Your task to perform on an android device: Go to internet settings Image 0: 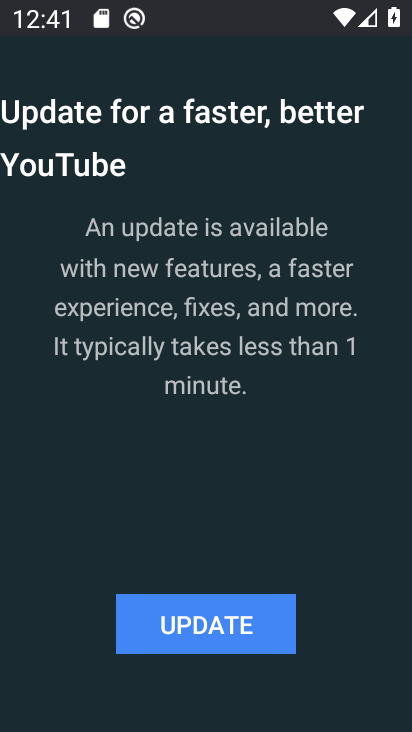
Step 0: press home button
Your task to perform on an android device: Go to internet settings Image 1: 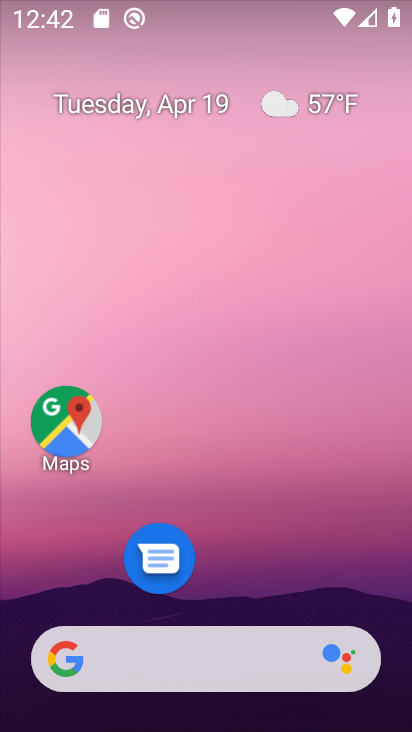
Step 1: drag from (245, 559) to (213, 99)
Your task to perform on an android device: Go to internet settings Image 2: 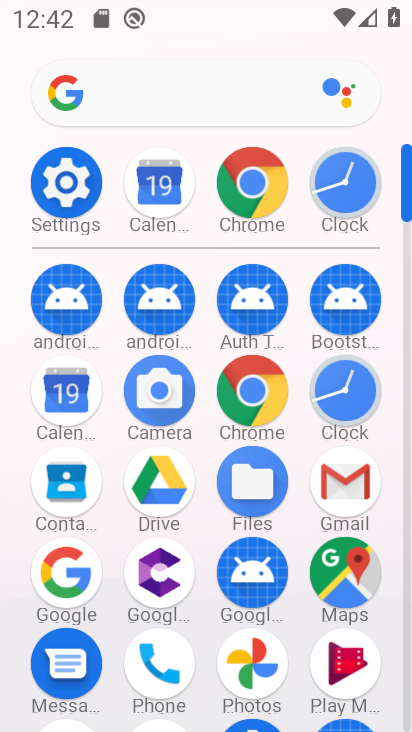
Step 2: click (65, 195)
Your task to perform on an android device: Go to internet settings Image 3: 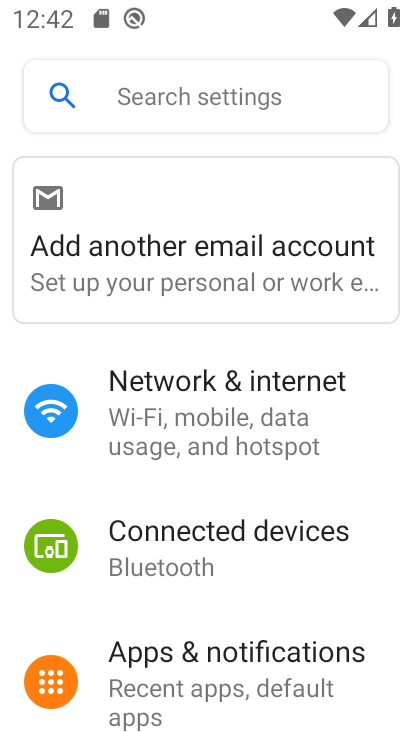
Step 3: click (175, 405)
Your task to perform on an android device: Go to internet settings Image 4: 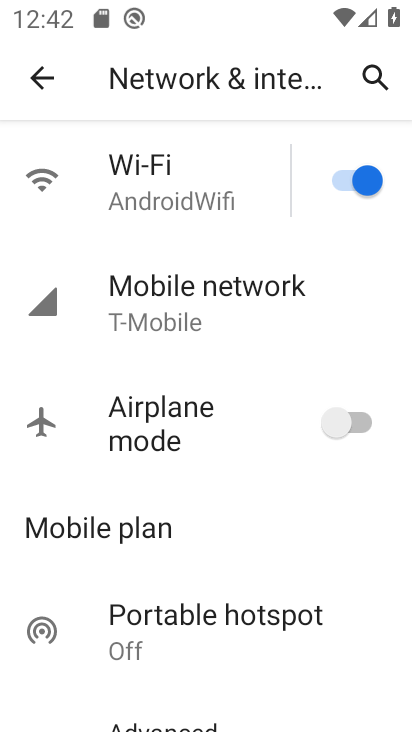
Step 4: task complete